Your task to perform on an android device: Open sound settings Image 0: 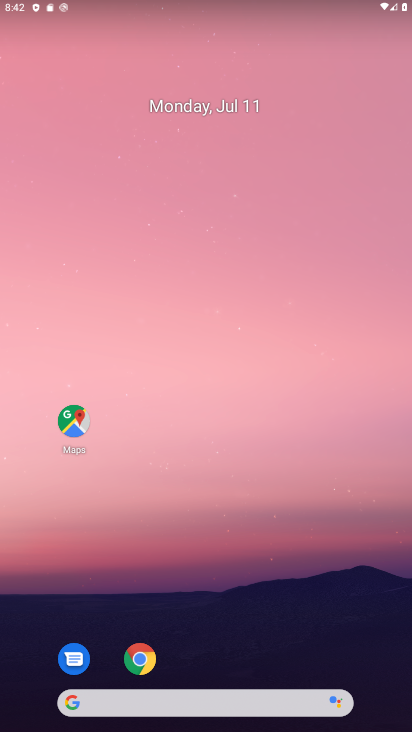
Step 0: drag from (185, 727) to (189, 90)
Your task to perform on an android device: Open sound settings Image 1: 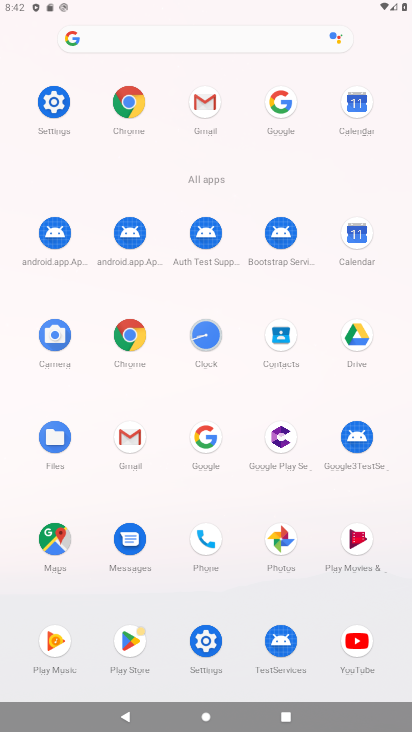
Step 1: click (56, 101)
Your task to perform on an android device: Open sound settings Image 2: 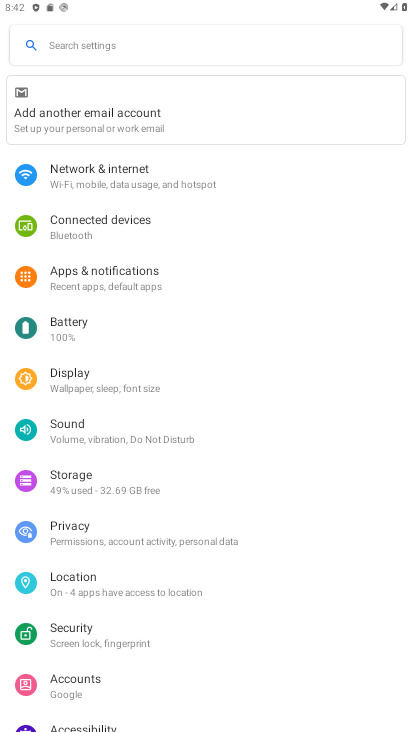
Step 2: click (66, 422)
Your task to perform on an android device: Open sound settings Image 3: 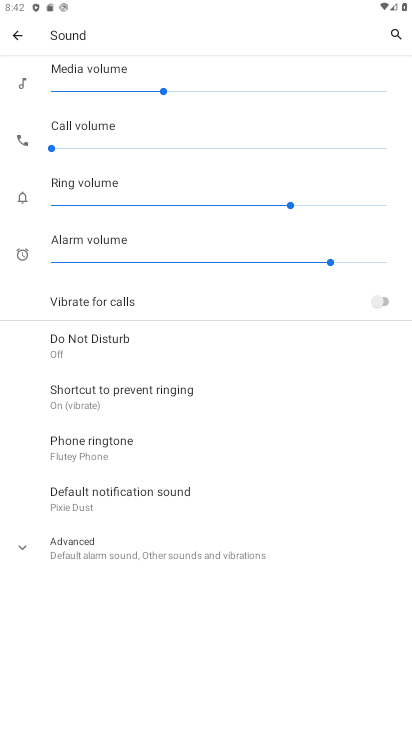
Step 3: task complete